Your task to perform on an android device: Is it going to rain tomorrow? Image 0: 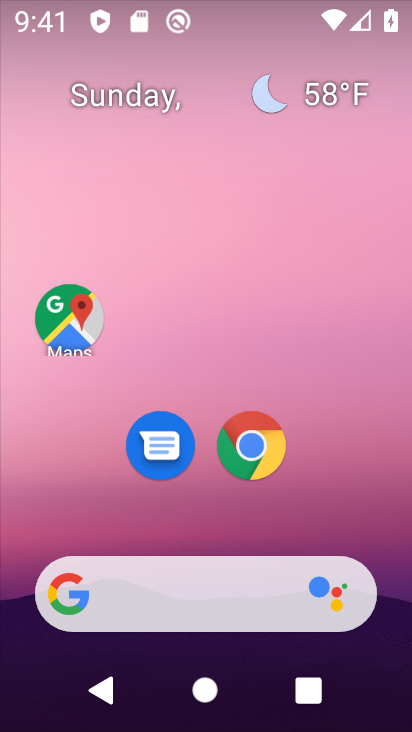
Step 0: click (306, 96)
Your task to perform on an android device: Is it going to rain tomorrow? Image 1: 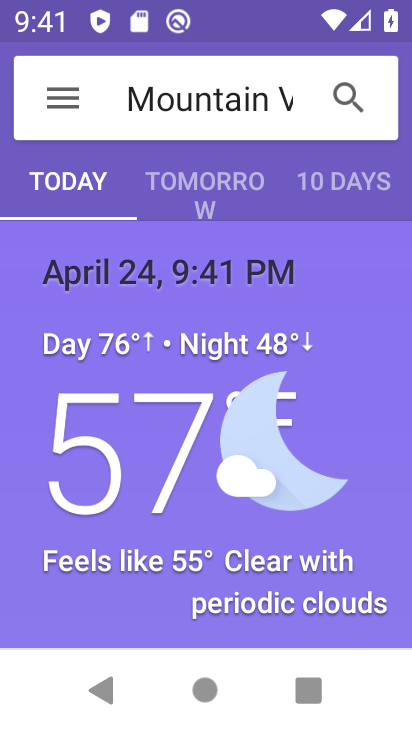
Step 1: click (197, 194)
Your task to perform on an android device: Is it going to rain tomorrow? Image 2: 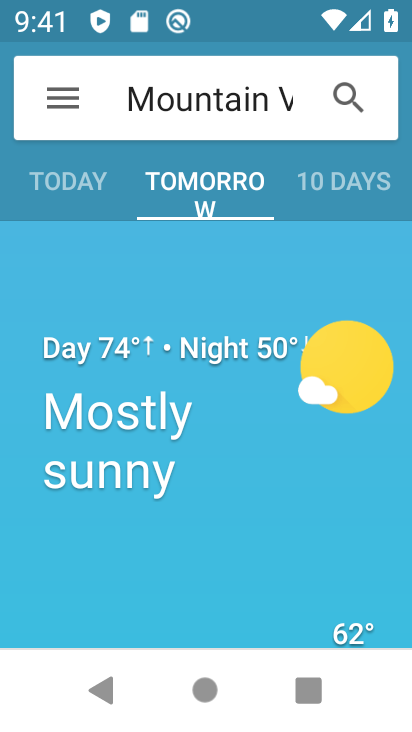
Step 2: task complete